Your task to perform on an android device: find photos in the google photos app Image 0: 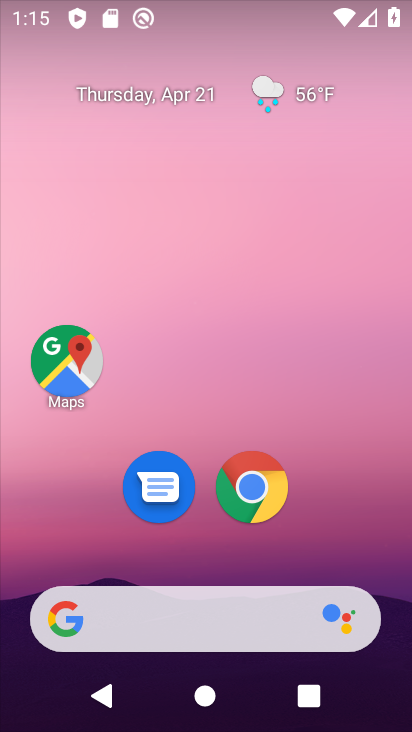
Step 0: drag from (387, 531) to (410, 663)
Your task to perform on an android device: find photos in the google photos app Image 1: 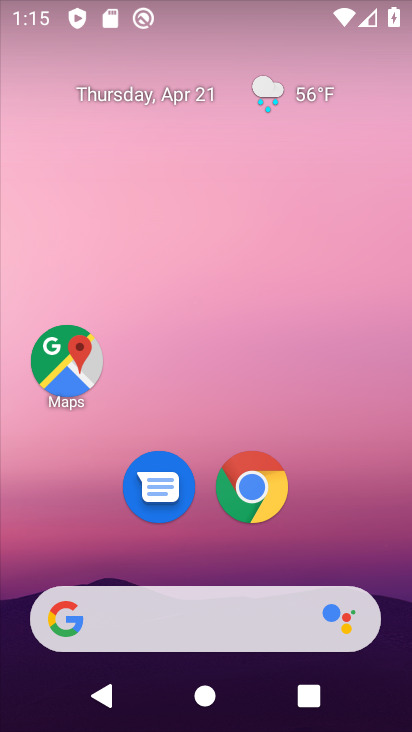
Step 1: drag from (406, 576) to (389, 8)
Your task to perform on an android device: find photos in the google photos app Image 2: 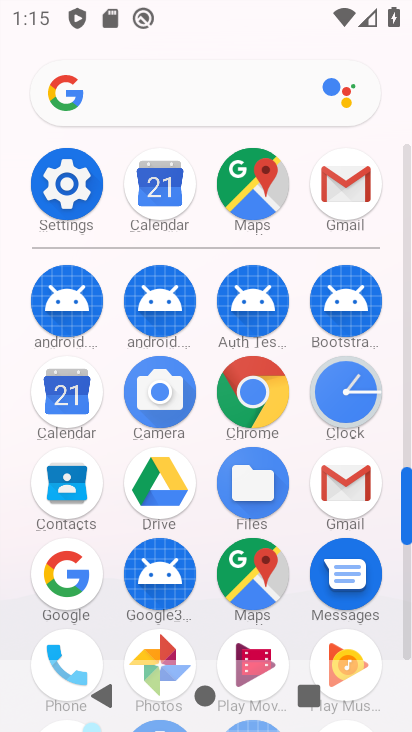
Step 2: click (151, 642)
Your task to perform on an android device: find photos in the google photos app Image 3: 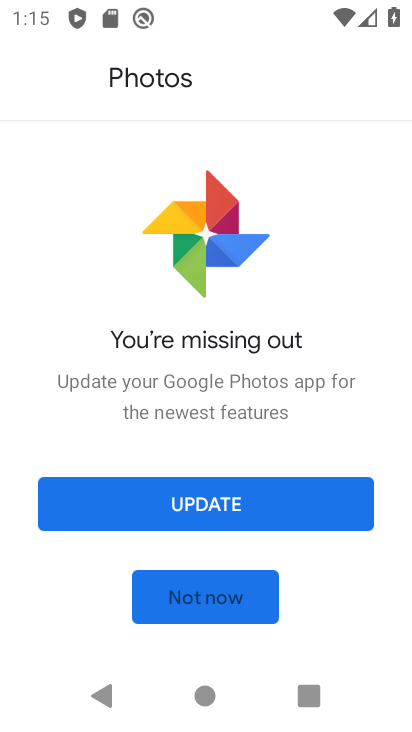
Step 3: click (243, 602)
Your task to perform on an android device: find photos in the google photos app Image 4: 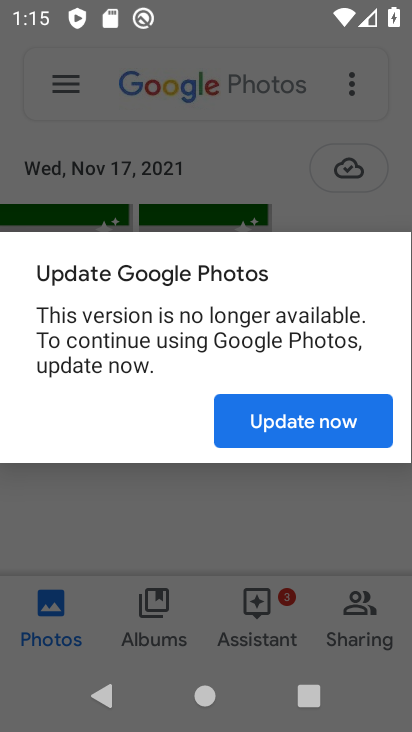
Step 4: click (238, 410)
Your task to perform on an android device: find photos in the google photos app Image 5: 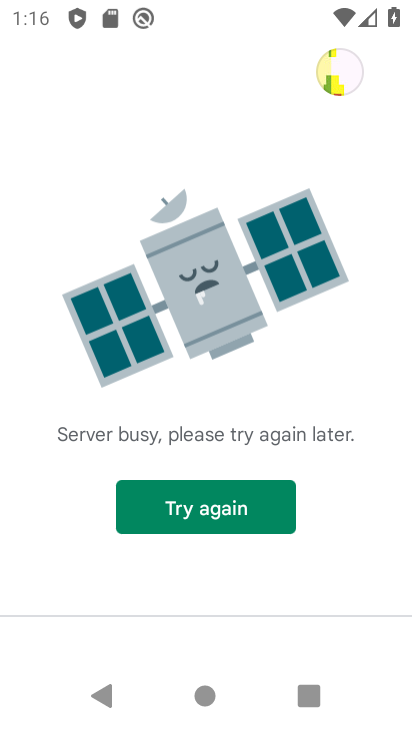
Step 5: click (210, 518)
Your task to perform on an android device: find photos in the google photos app Image 6: 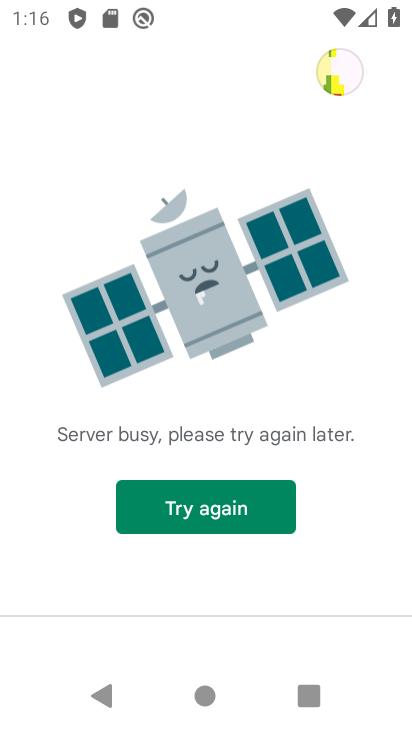
Step 6: task complete